Your task to perform on an android device: check android version Image 0: 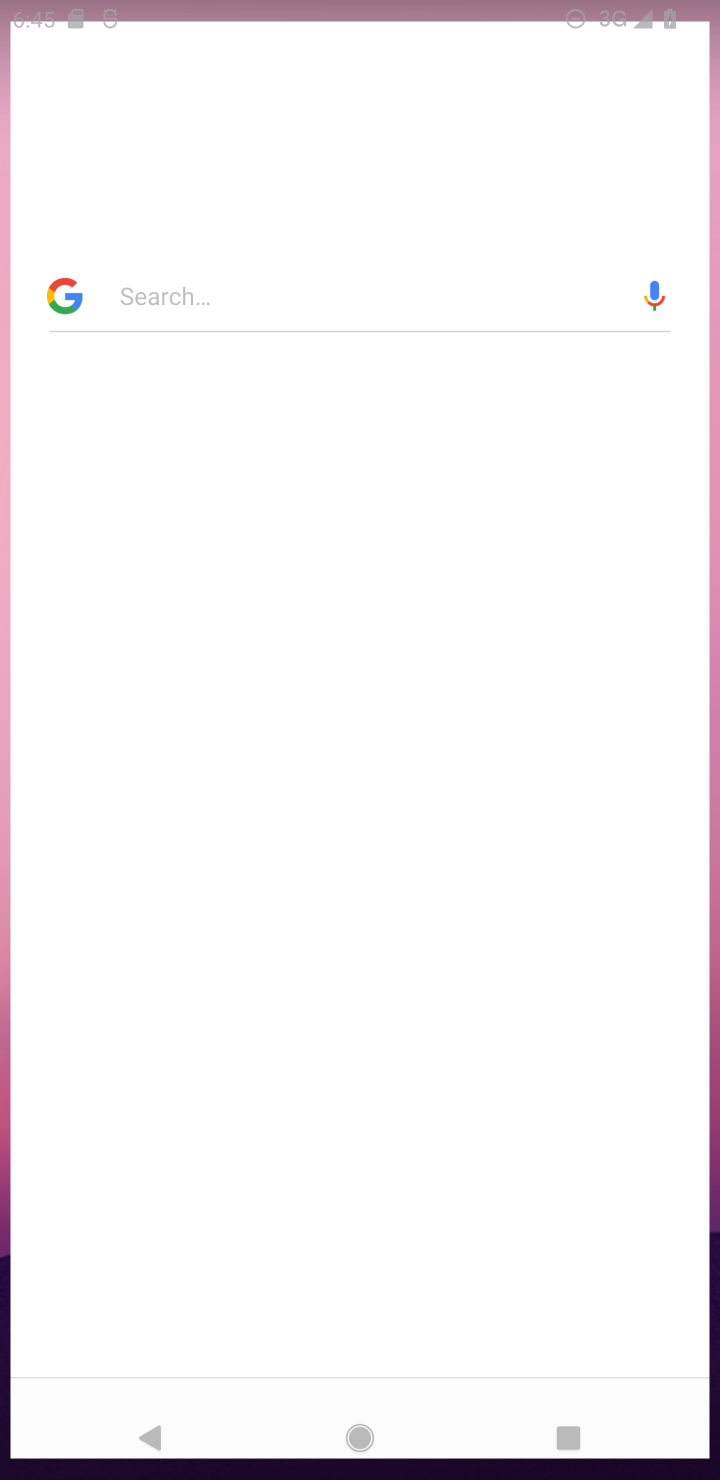
Step 0: press home button
Your task to perform on an android device: check android version Image 1: 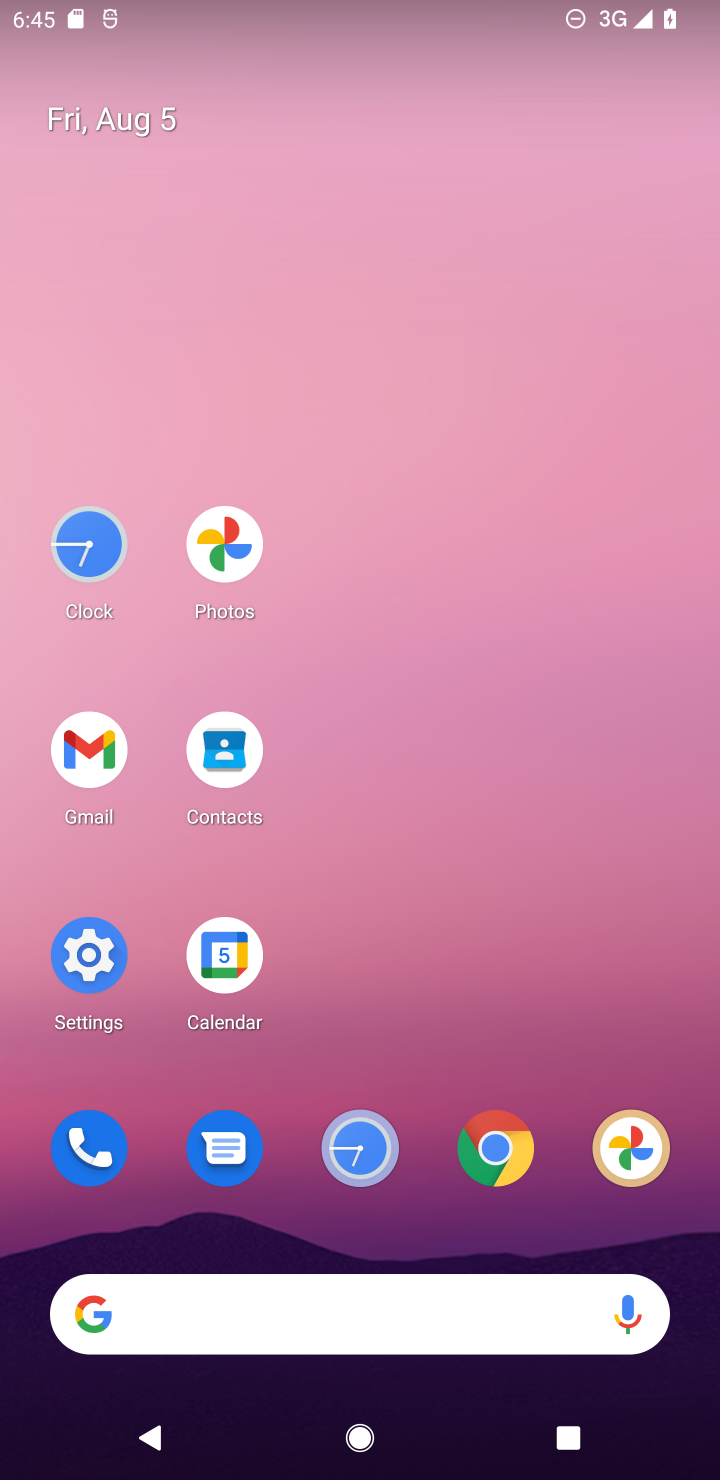
Step 1: click (89, 956)
Your task to perform on an android device: check android version Image 2: 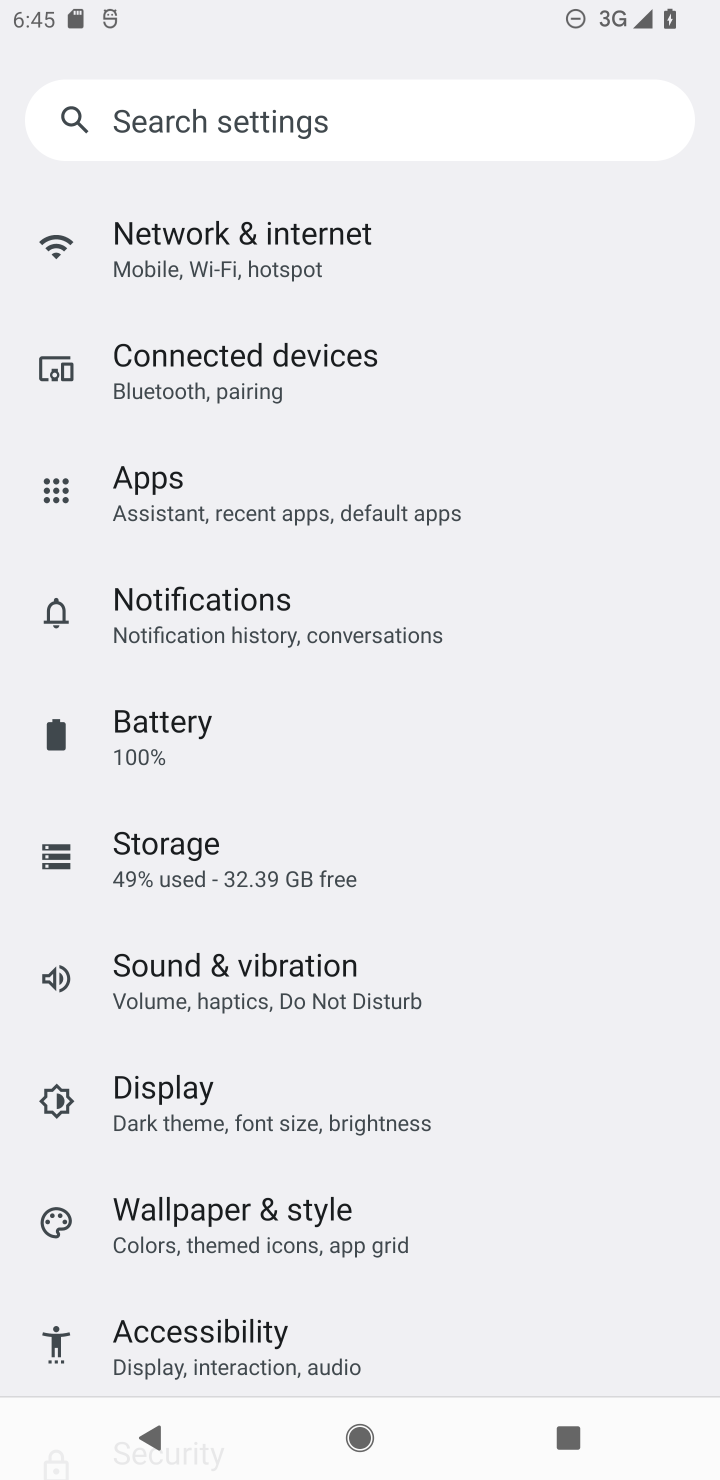
Step 2: drag from (487, 1288) to (440, 220)
Your task to perform on an android device: check android version Image 3: 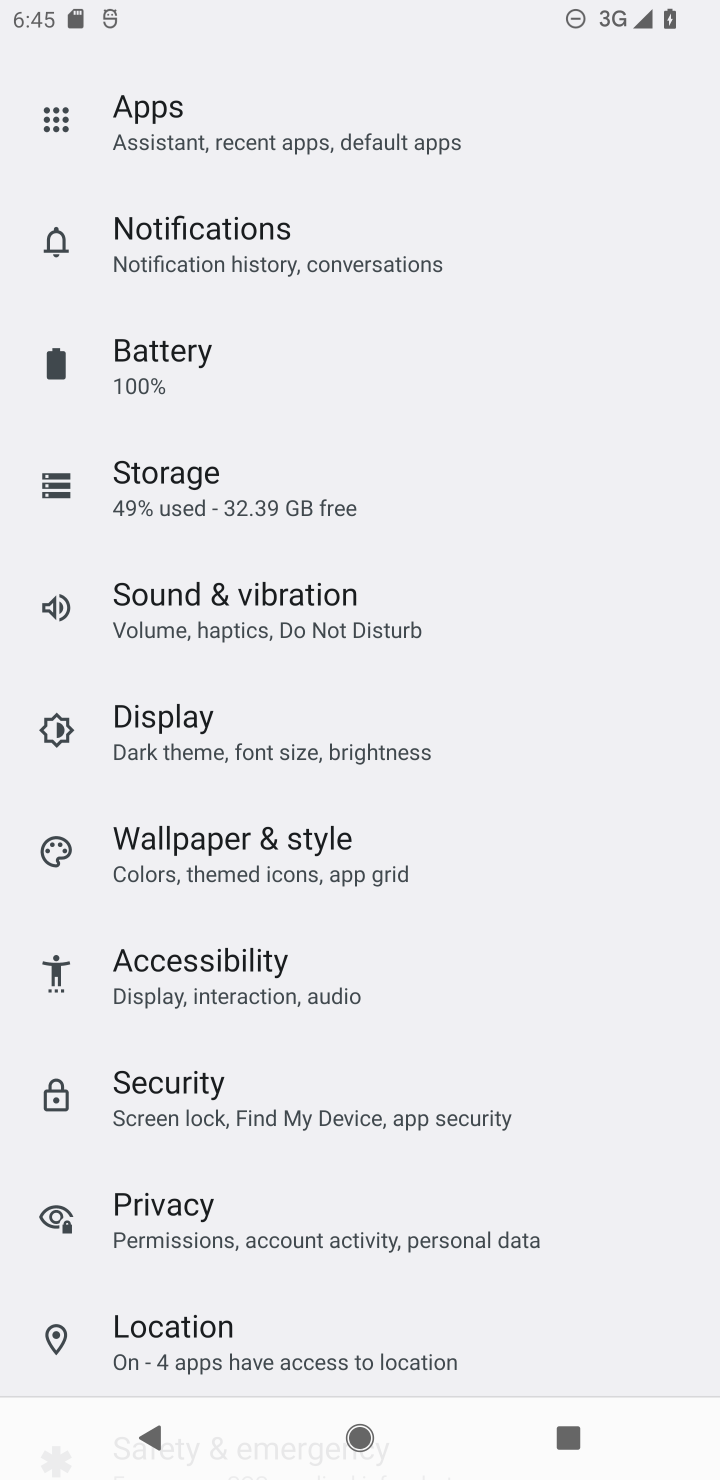
Step 3: drag from (423, 1296) to (382, 294)
Your task to perform on an android device: check android version Image 4: 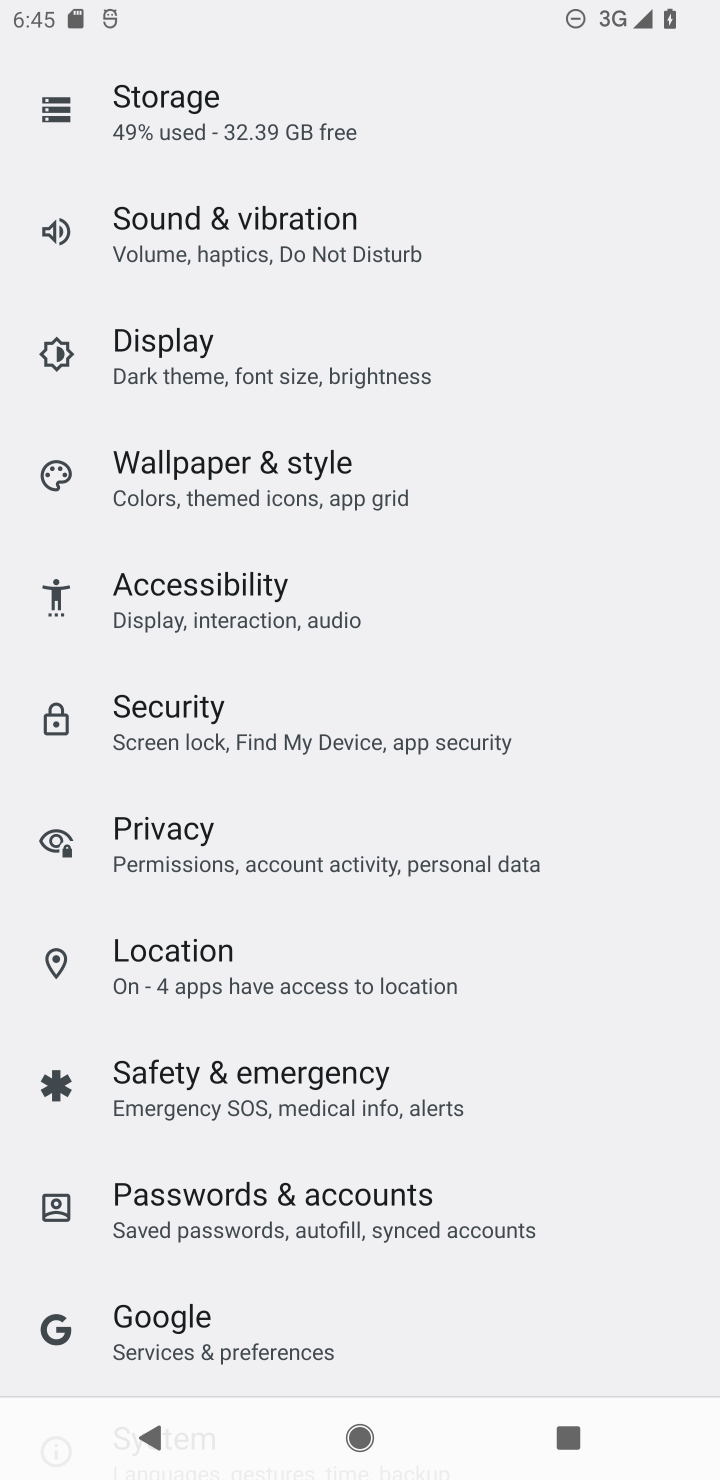
Step 4: drag from (363, 1290) to (262, 494)
Your task to perform on an android device: check android version Image 5: 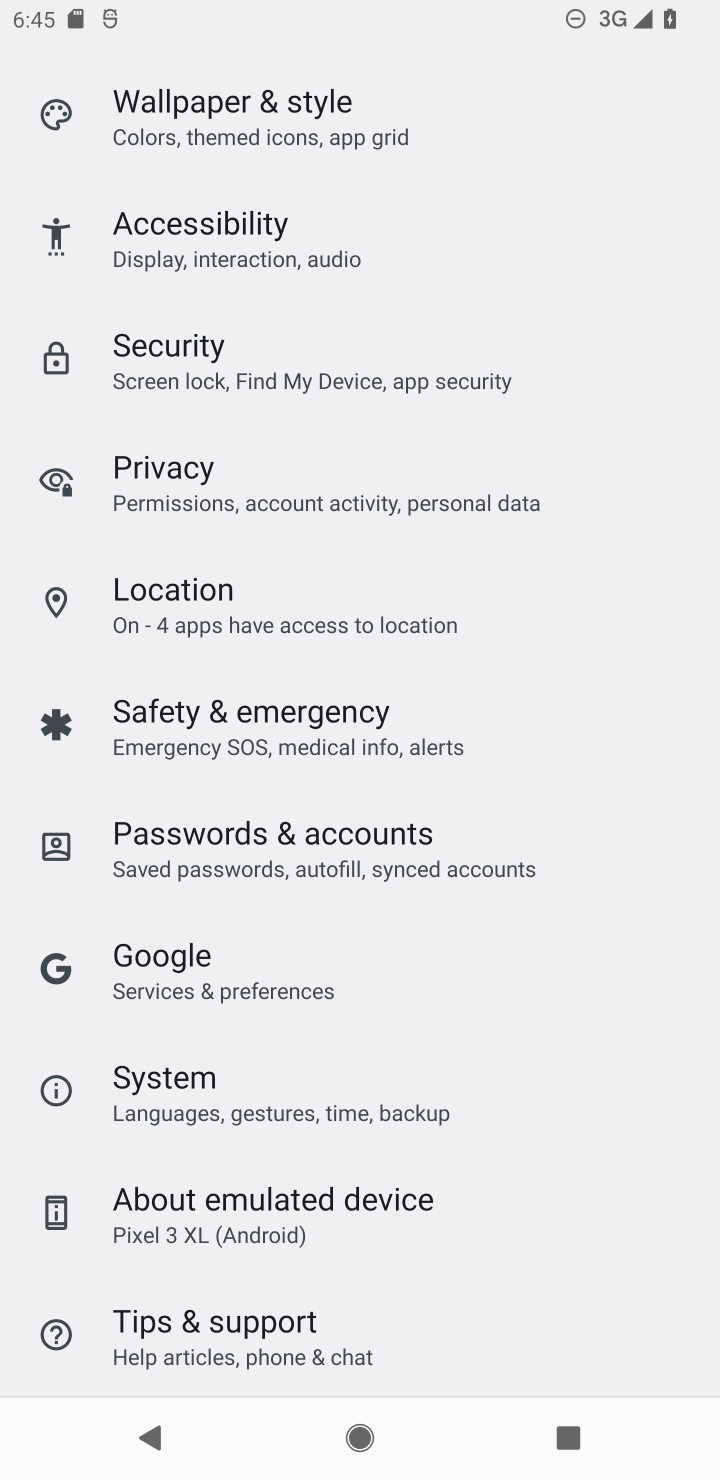
Step 5: drag from (383, 1276) to (283, 415)
Your task to perform on an android device: check android version Image 6: 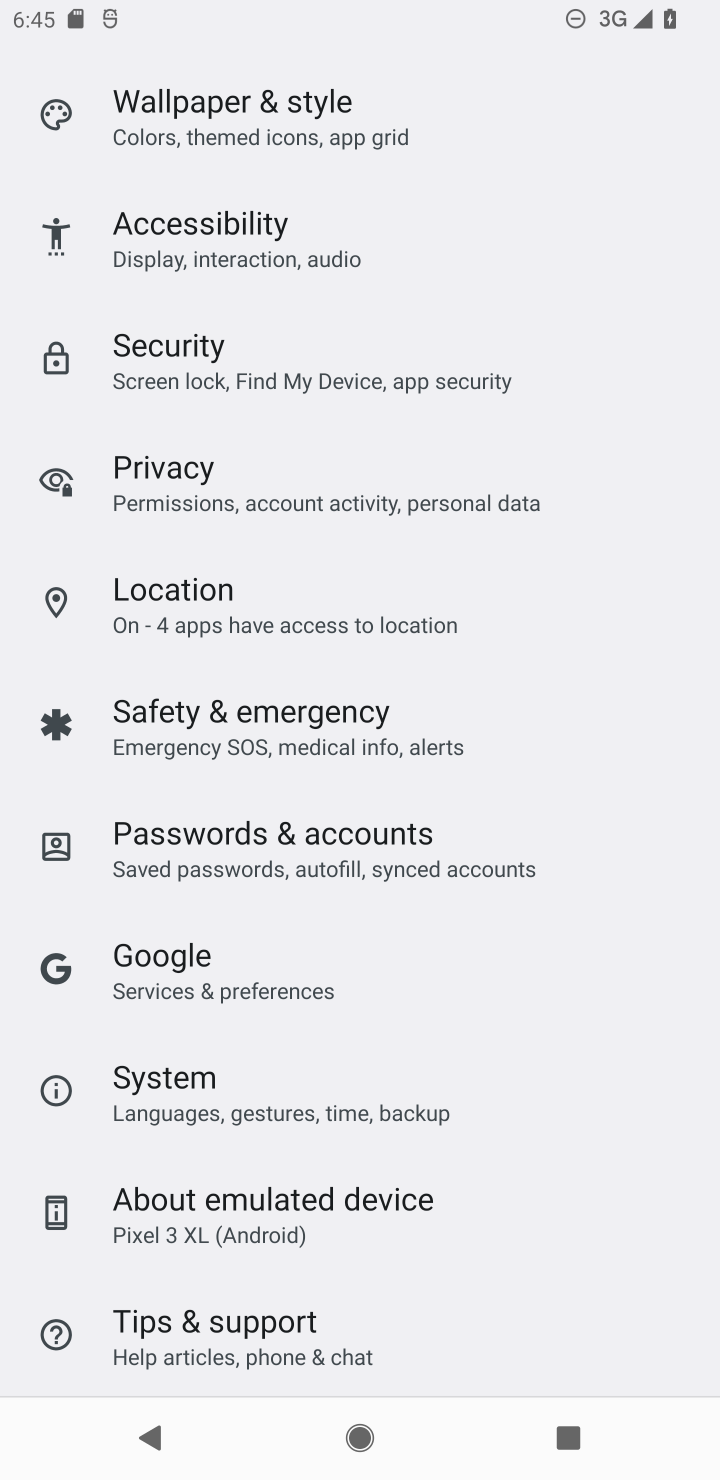
Step 6: click (344, 1201)
Your task to perform on an android device: check android version Image 7: 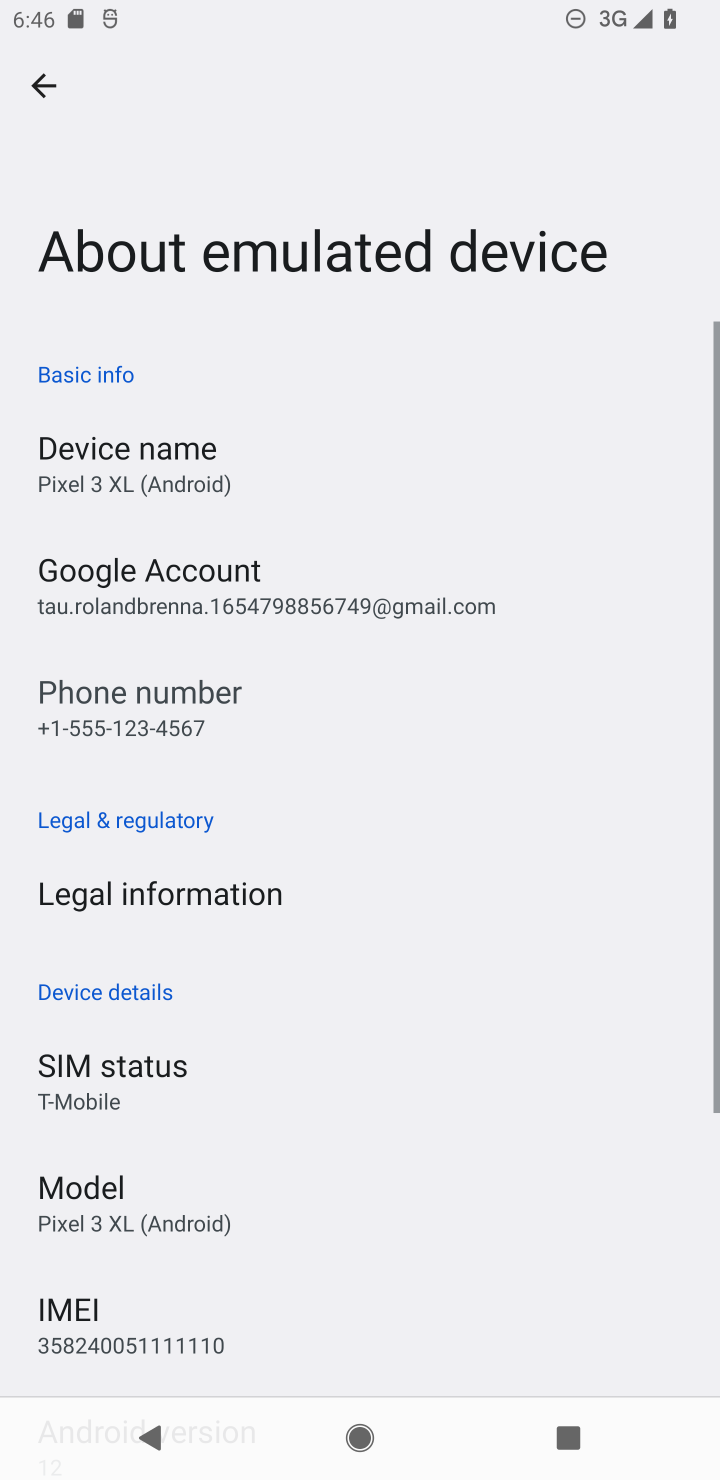
Step 7: drag from (378, 1249) to (338, 720)
Your task to perform on an android device: check android version Image 8: 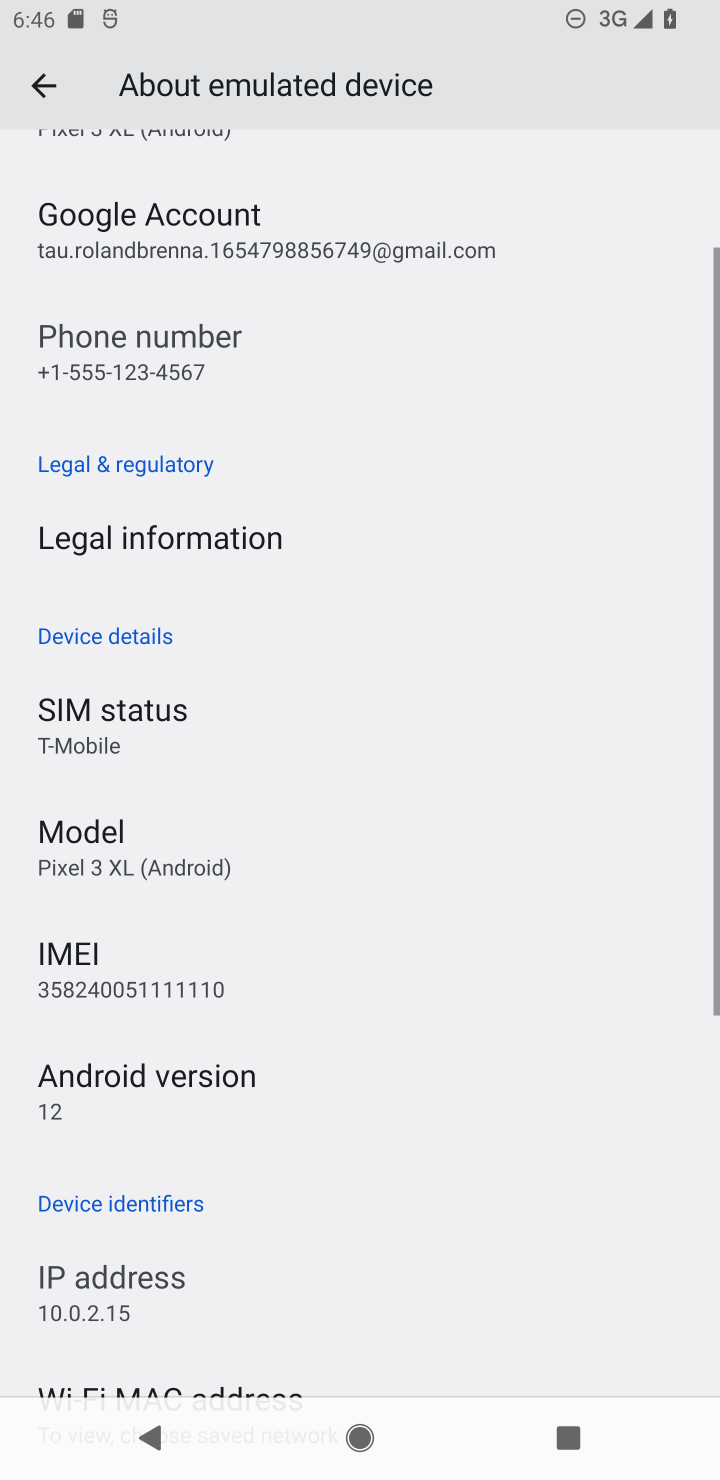
Step 8: click (149, 1066)
Your task to perform on an android device: check android version Image 9: 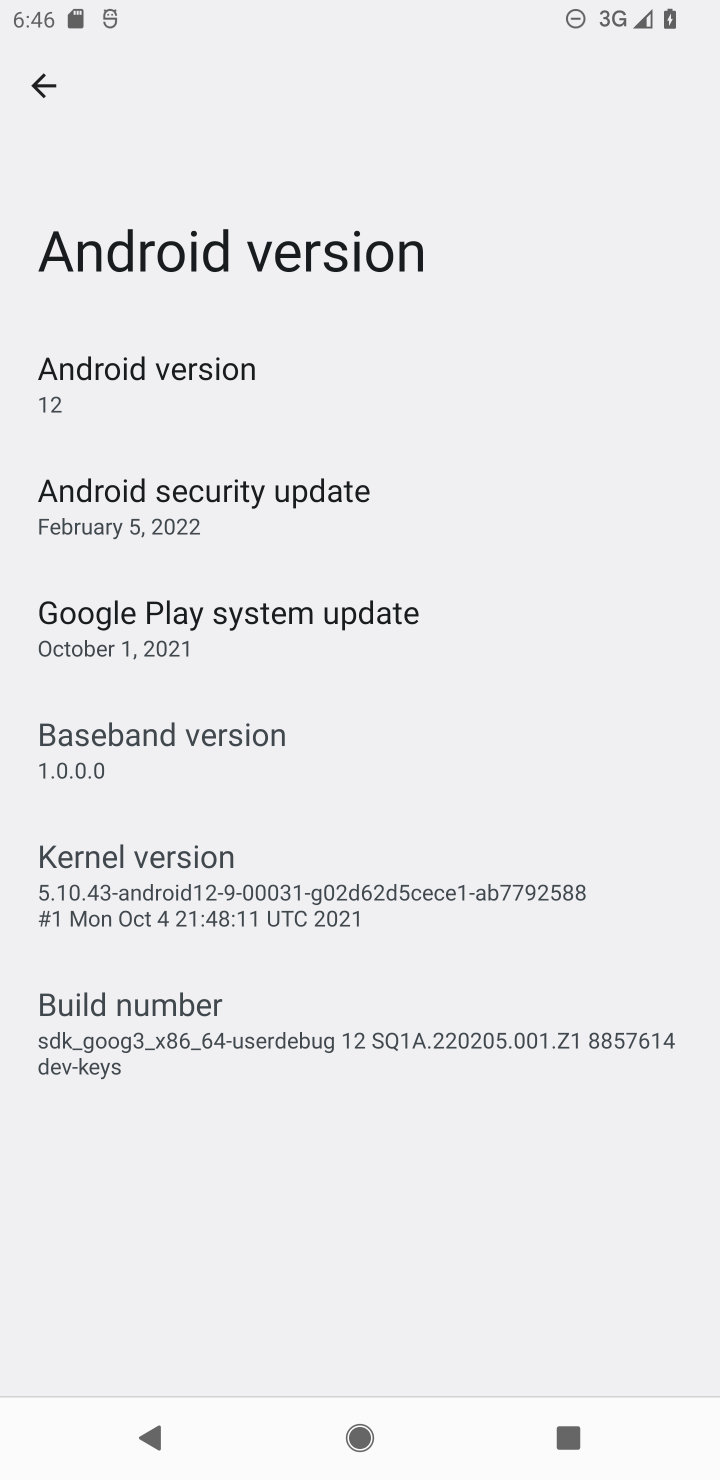
Step 9: task complete